Your task to perform on an android device: turn on bluetooth scan Image 0: 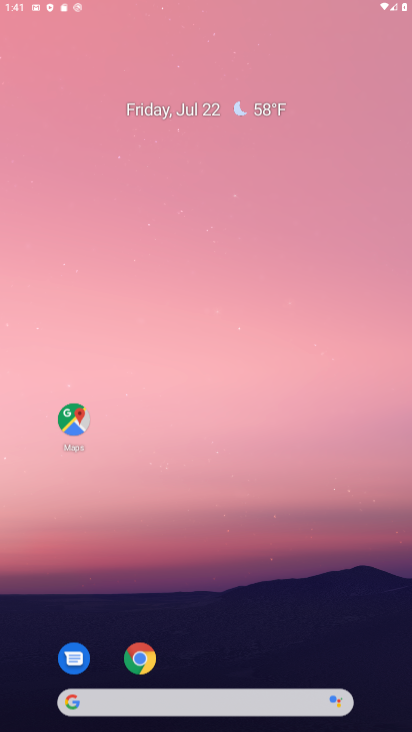
Step 0: click (339, 377)
Your task to perform on an android device: turn on bluetooth scan Image 1: 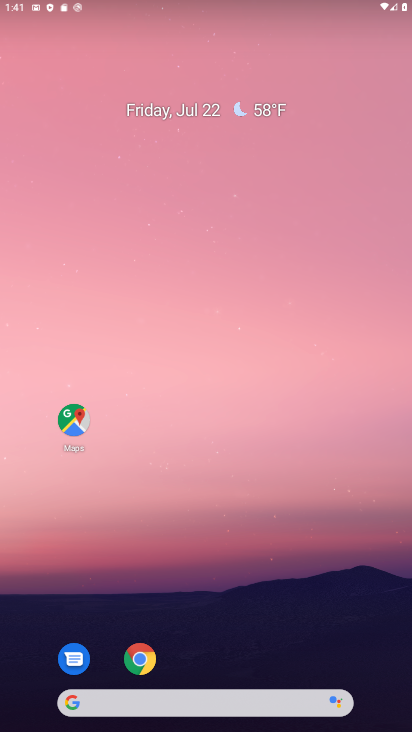
Step 1: drag from (218, 674) to (252, 41)
Your task to perform on an android device: turn on bluetooth scan Image 2: 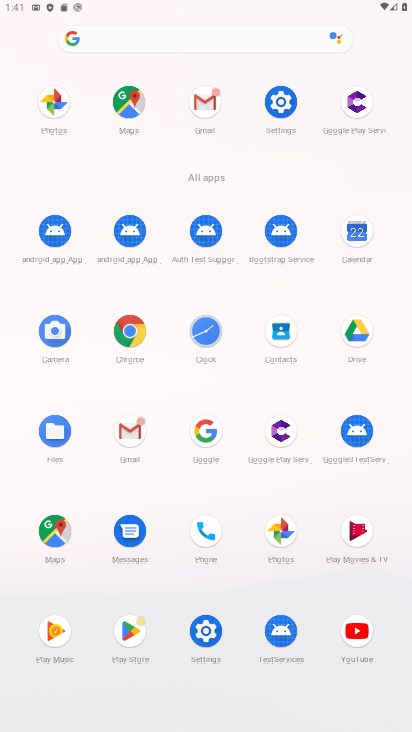
Step 2: click (281, 101)
Your task to perform on an android device: turn on bluetooth scan Image 3: 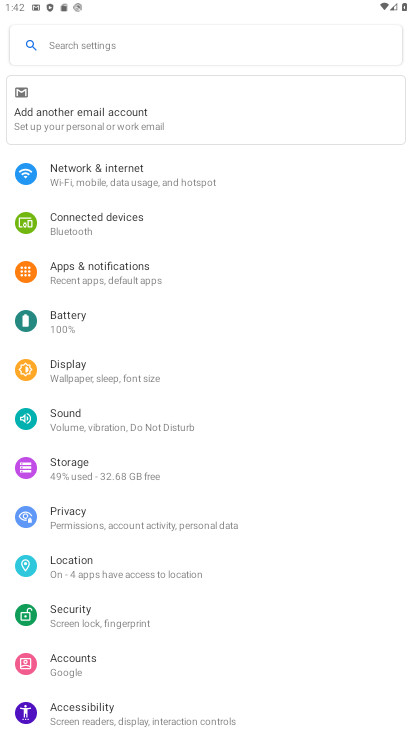
Step 3: drag from (97, 681) to (73, 464)
Your task to perform on an android device: turn on bluetooth scan Image 4: 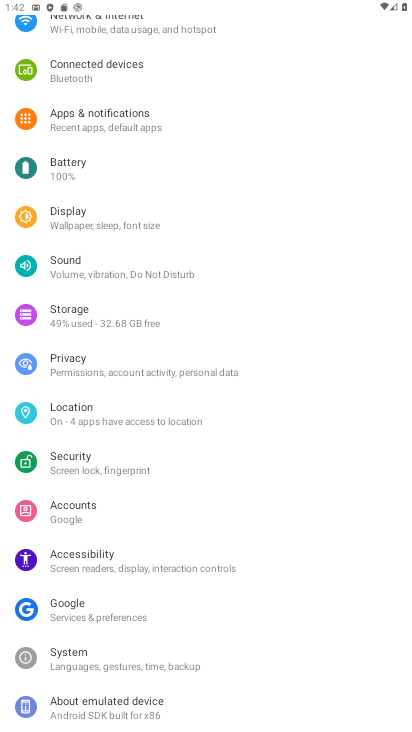
Step 4: click (85, 407)
Your task to perform on an android device: turn on bluetooth scan Image 5: 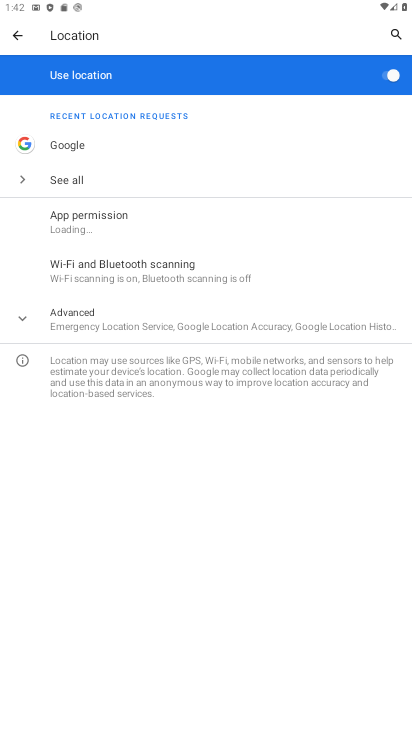
Step 5: click (86, 278)
Your task to perform on an android device: turn on bluetooth scan Image 6: 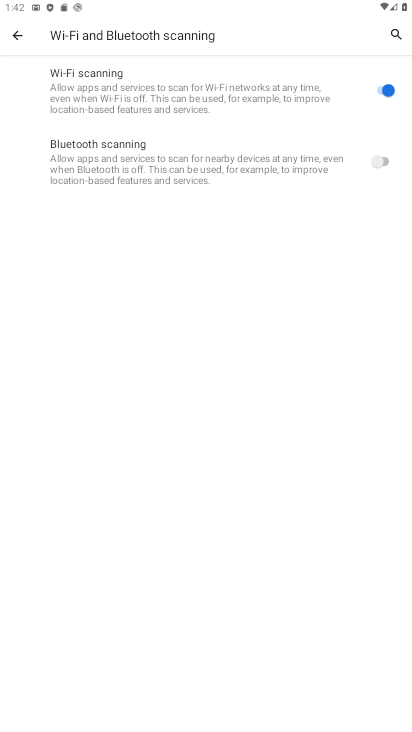
Step 6: click (377, 155)
Your task to perform on an android device: turn on bluetooth scan Image 7: 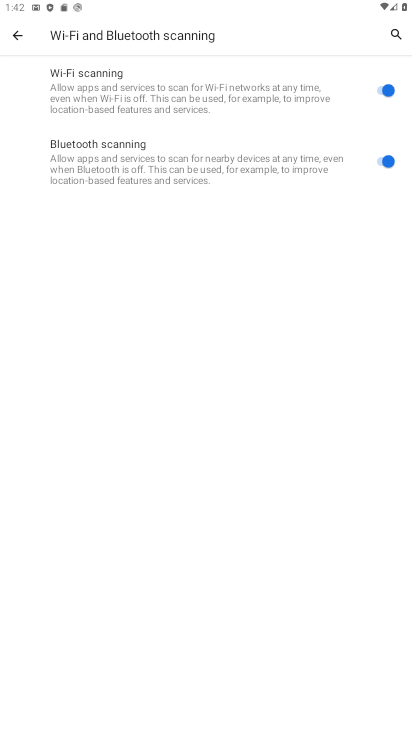
Step 7: task complete